Your task to perform on an android device: Open Yahoo.com Image 0: 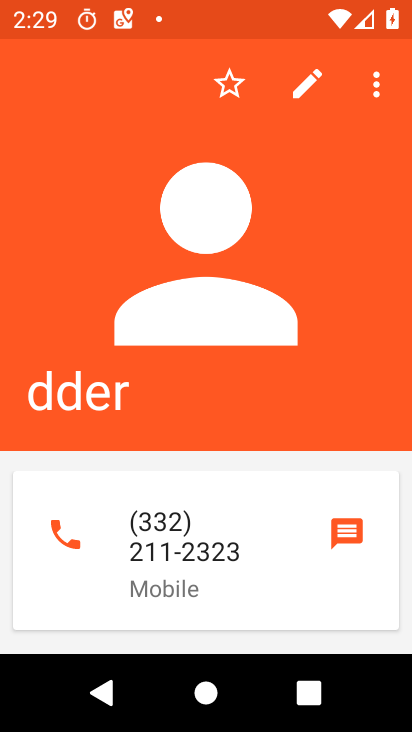
Step 0: press home button
Your task to perform on an android device: Open Yahoo.com Image 1: 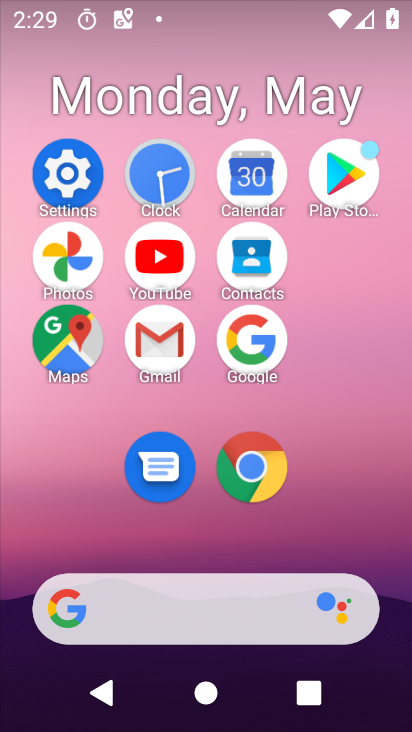
Step 1: click (252, 448)
Your task to perform on an android device: Open Yahoo.com Image 2: 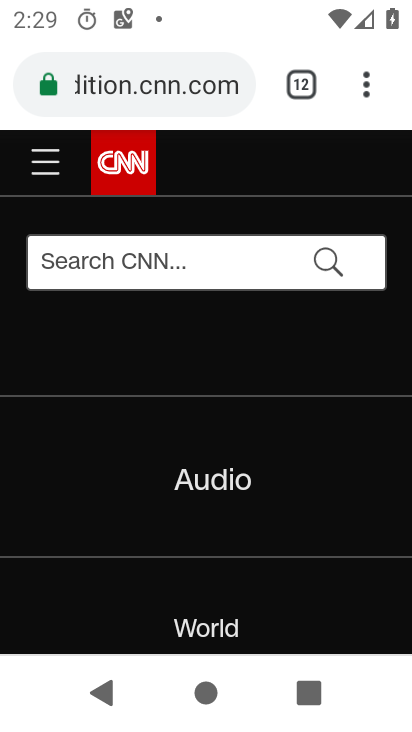
Step 2: click (311, 80)
Your task to perform on an android device: Open Yahoo.com Image 3: 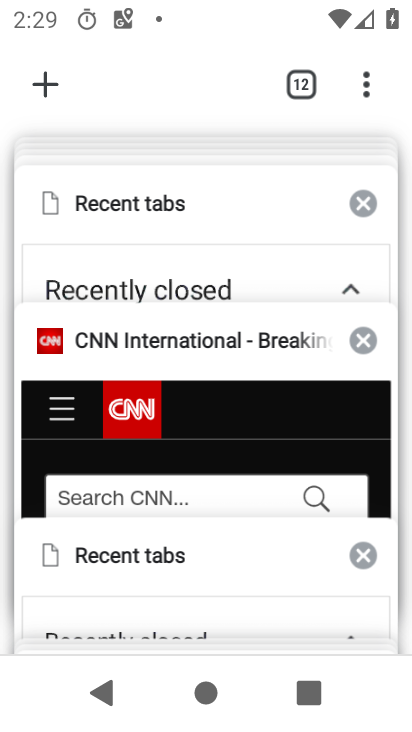
Step 3: drag from (223, 210) to (219, 593)
Your task to perform on an android device: Open Yahoo.com Image 4: 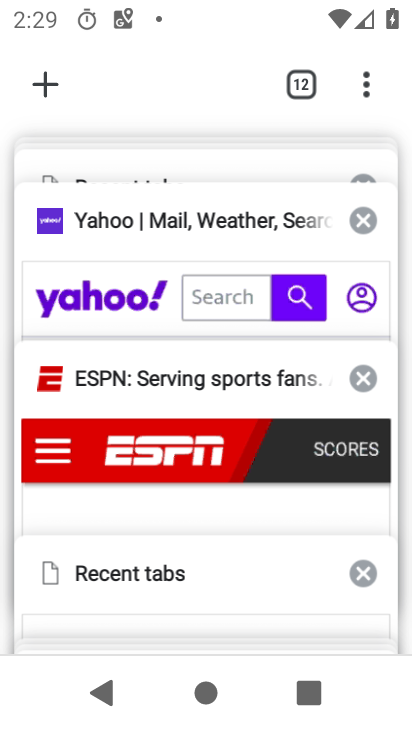
Step 4: click (117, 287)
Your task to perform on an android device: Open Yahoo.com Image 5: 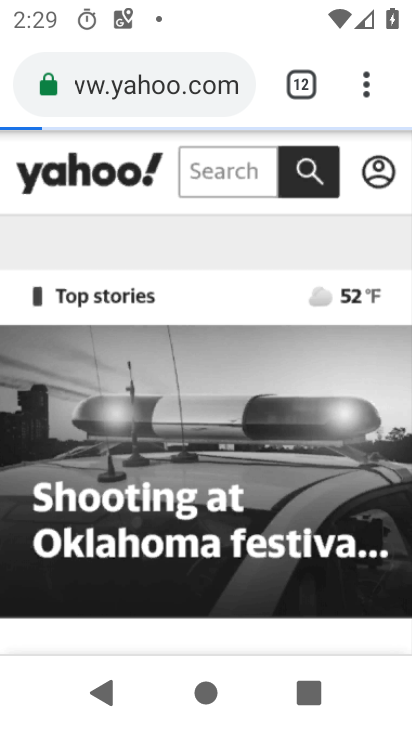
Step 5: task complete